Your task to perform on an android device: star an email in the gmail app Image 0: 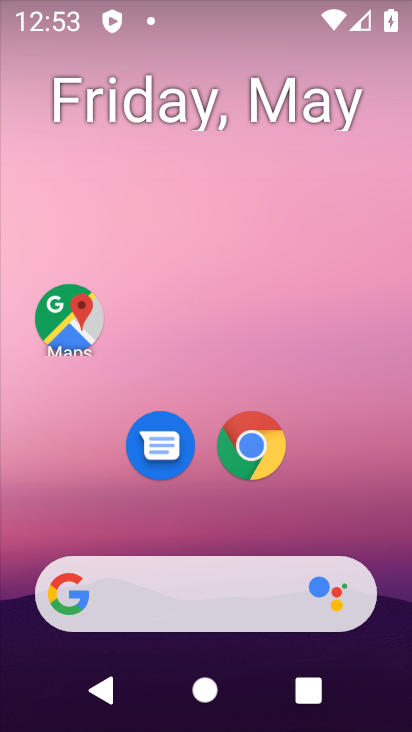
Step 0: drag from (202, 529) to (12, 2)
Your task to perform on an android device: star an email in the gmail app Image 1: 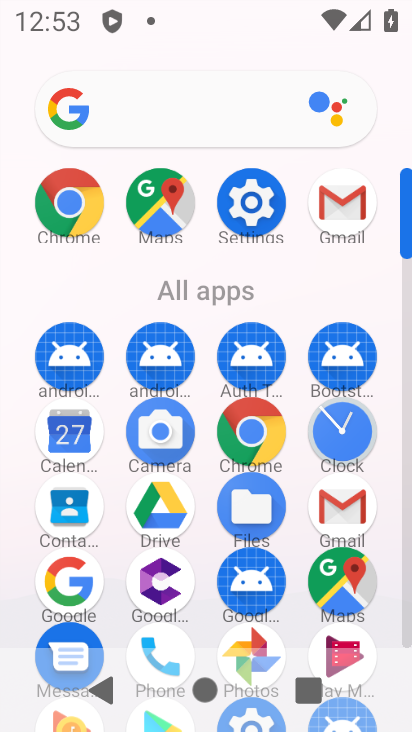
Step 1: click (354, 194)
Your task to perform on an android device: star an email in the gmail app Image 2: 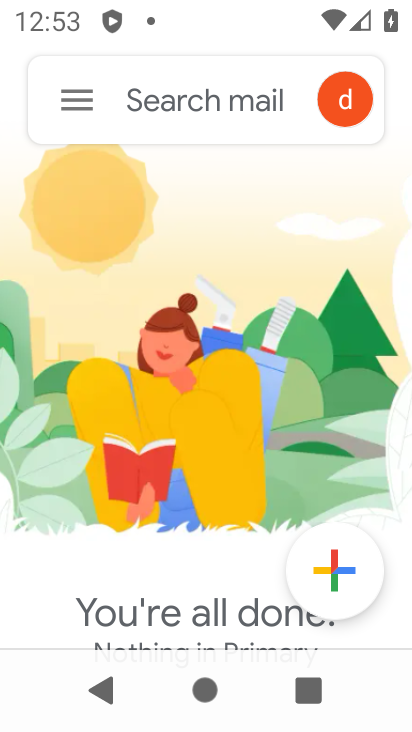
Step 2: click (77, 98)
Your task to perform on an android device: star an email in the gmail app Image 3: 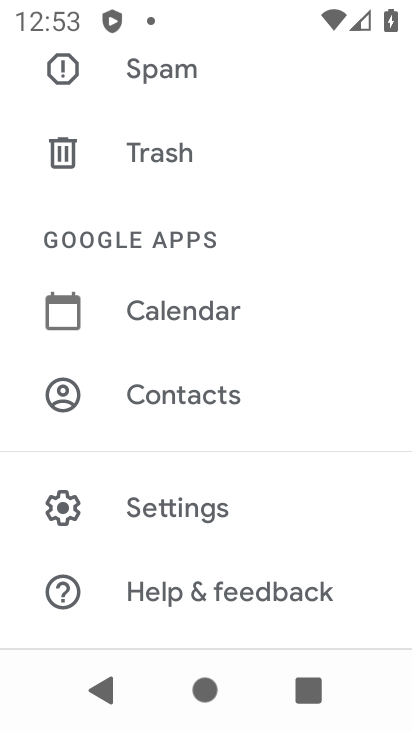
Step 3: drag from (150, 502) to (192, 698)
Your task to perform on an android device: star an email in the gmail app Image 4: 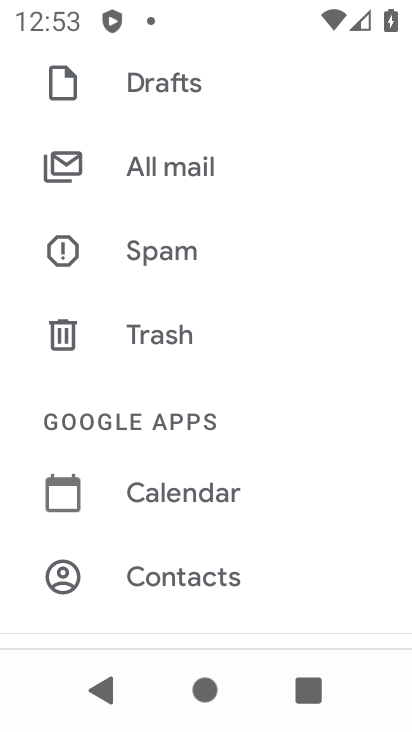
Step 4: click (176, 177)
Your task to perform on an android device: star an email in the gmail app Image 5: 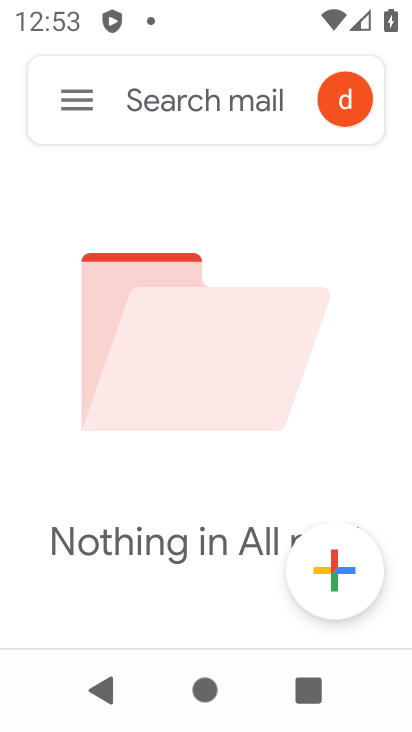
Step 5: task complete